Your task to perform on an android device: change alarm snooze length Image 0: 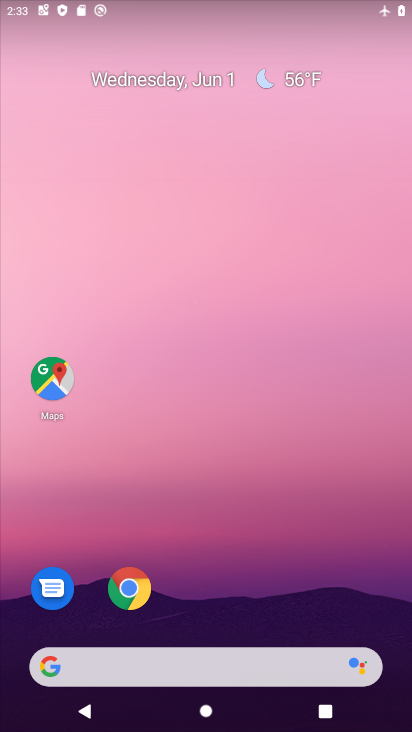
Step 0: click (292, 82)
Your task to perform on an android device: change alarm snooze length Image 1: 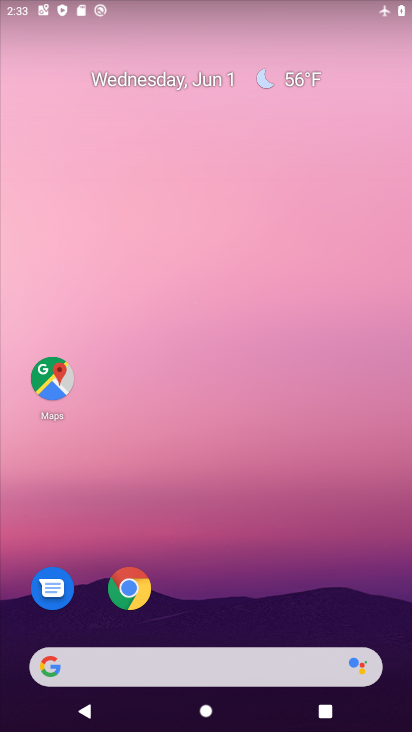
Step 1: drag from (290, 328) to (216, 10)
Your task to perform on an android device: change alarm snooze length Image 2: 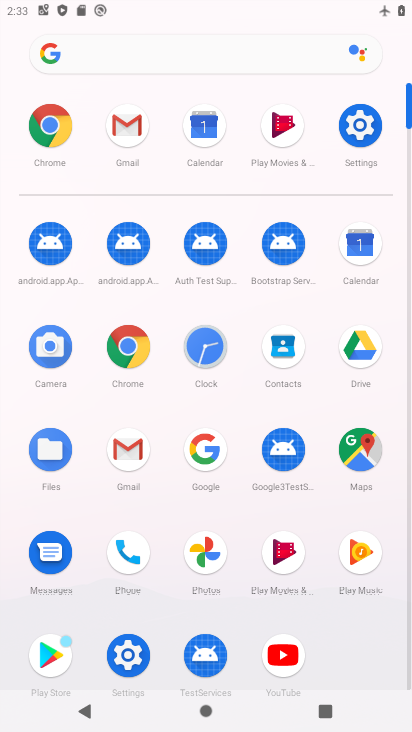
Step 2: click (214, 339)
Your task to perform on an android device: change alarm snooze length Image 3: 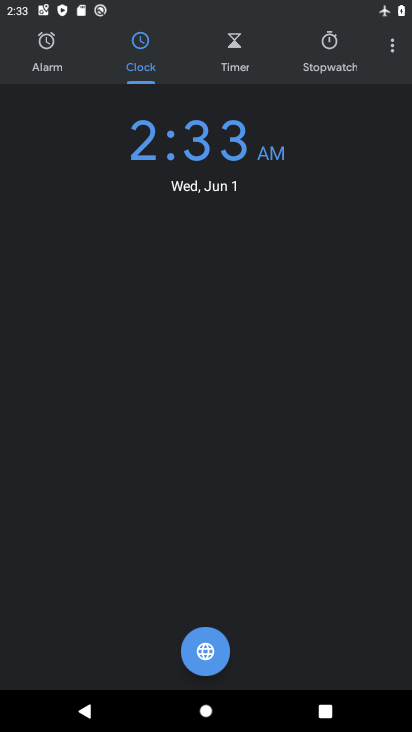
Step 3: click (392, 38)
Your task to perform on an android device: change alarm snooze length Image 4: 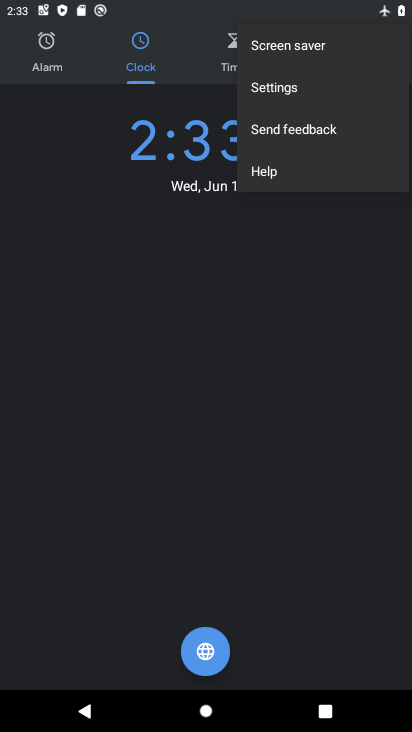
Step 4: click (304, 98)
Your task to perform on an android device: change alarm snooze length Image 5: 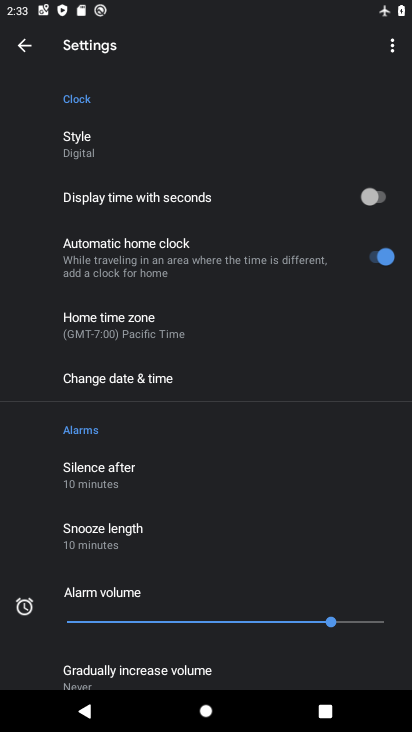
Step 5: click (124, 525)
Your task to perform on an android device: change alarm snooze length Image 6: 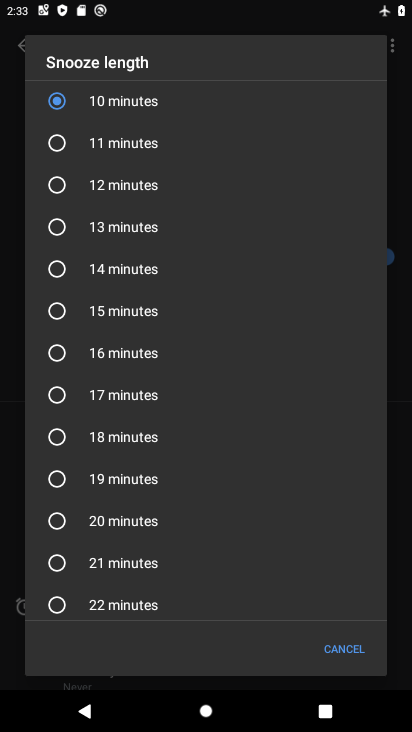
Step 6: click (133, 150)
Your task to perform on an android device: change alarm snooze length Image 7: 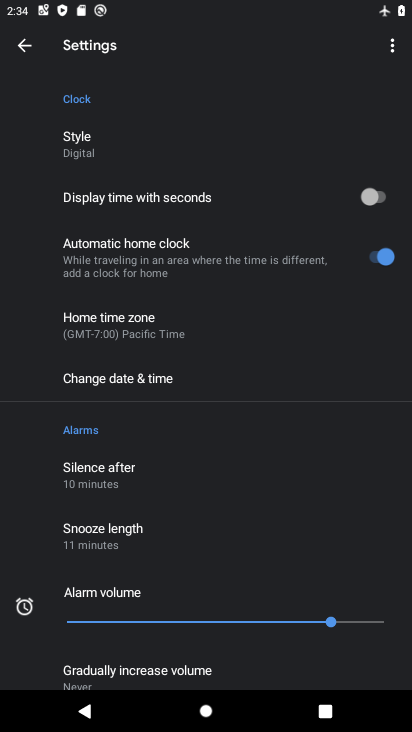
Step 7: task complete